Your task to perform on an android device: Open Android settings Image 0: 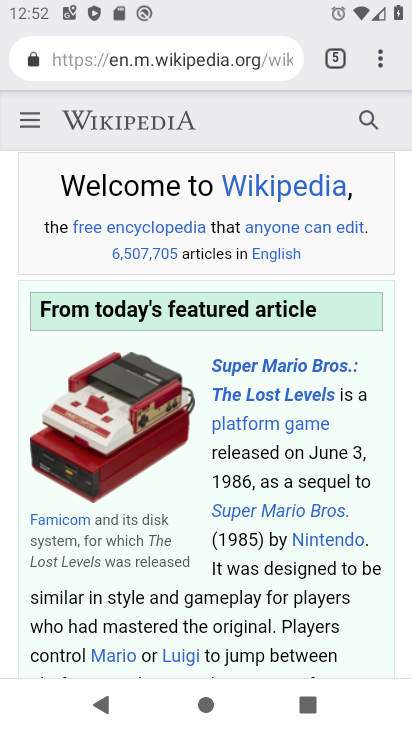
Step 0: press home button
Your task to perform on an android device: Open Android settings Image 1: 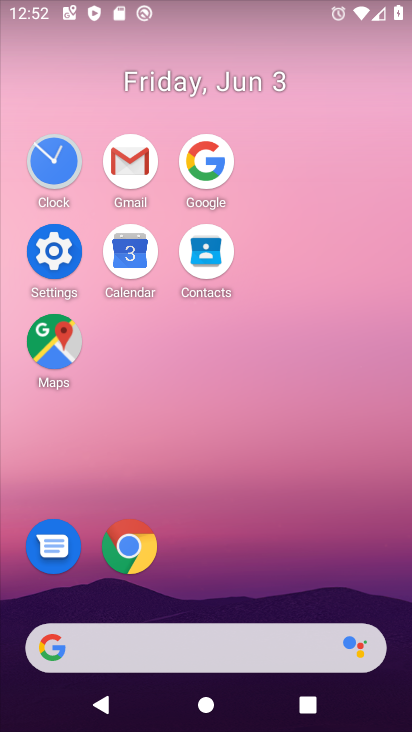
Step 1: click (63, 259)
Your task to perform on an android device: Open Android settings Image 2: 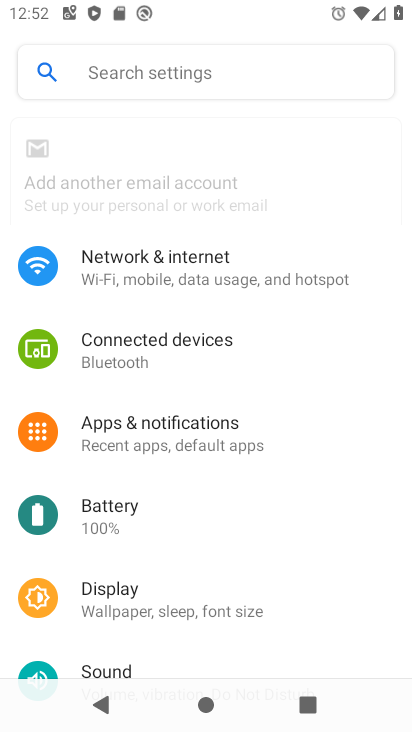
Step 2: task complete